Your task to perform on an android device: delete a single message in the gmail app Image 0: 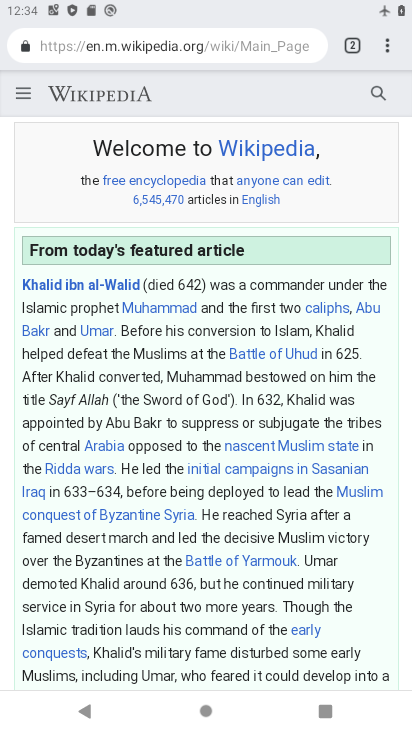
Step 0: press home button
Your task to perform on an android device: delete a single message in the gmail app Image 1: 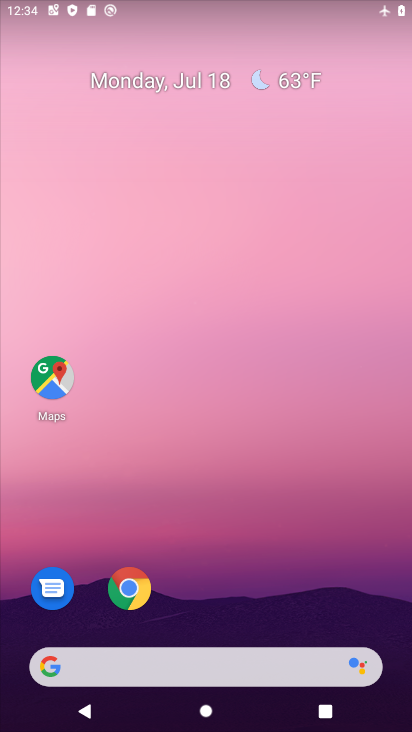
Step 1: drag from (229, 725) to (230, 121)
Your task to perform on an android device: delete a single message in the gmail app Image 2: 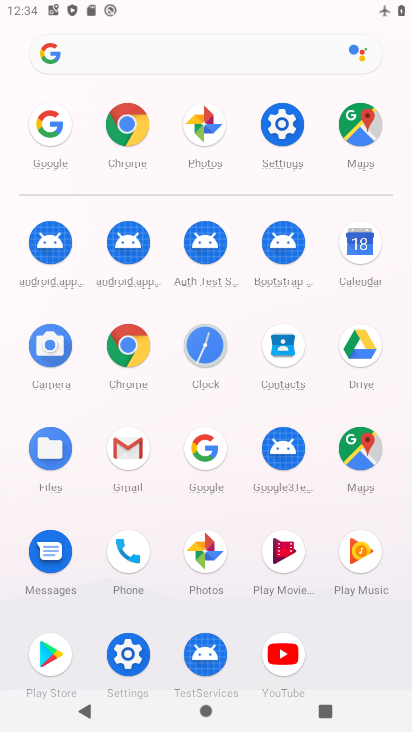
Step 2: click (142, 446)
Your task to perform on an android device: delete a single message in the gmail app Image 3: 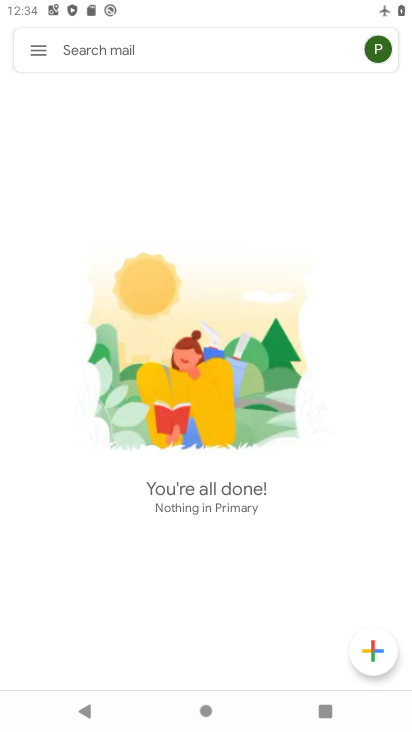
Step 3: task complete